Your task to perform on an android device: Add "logitech g pro" to the cart on bestbuy.com, then select checkout. Image 0: 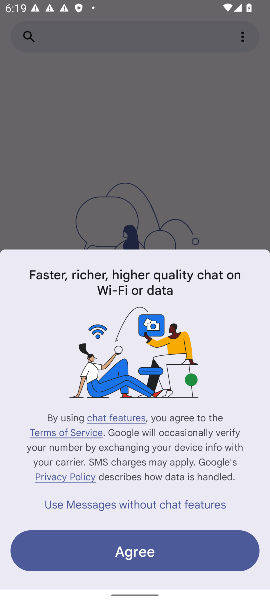
Step 0: press home button
Your task to perform on an android device: Add "logitech g pro" to the cart on bestbuy.com, then select checkout. Image 1: 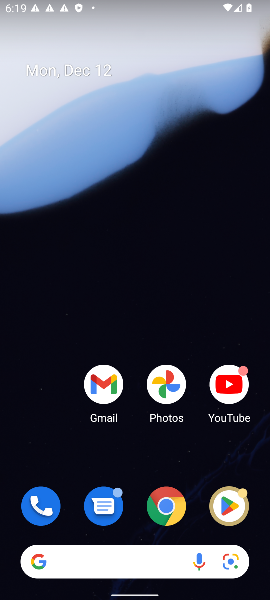
Step 1: click (167, 556)
Your task to perform on an android device: Add "logitech g pro" to the cart on bestbuy.com, then select checkout. Image 2: 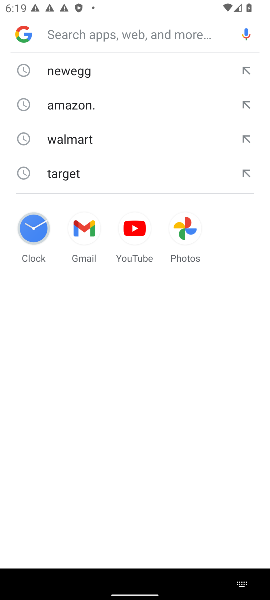
Step 2: type "bestbuy"
Your task to perform on an android device: Add "logitech g pro" to the cart on bestbuy.com, then select checkout. Image 3: 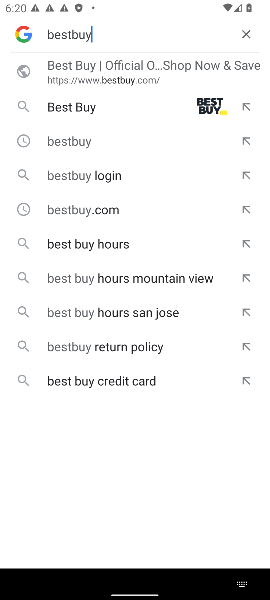
Step 3: click (124, 67)
Your task to perform on an android device: Add "logitech g pro" to the cart on bestbuy.com, then select checkout. Image 4: 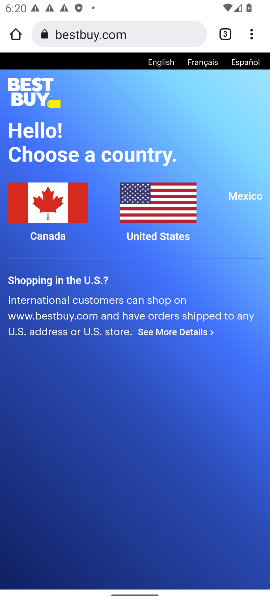
Step 4: click (50, 223)
Your task to perform on an android device: Add "logitech g pro" to the cart on bestbuy.com, then select checkout. Image 5: 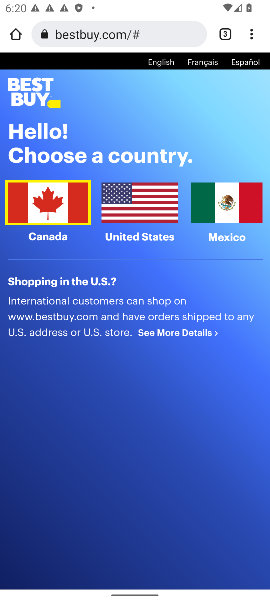
Step 5: click (50, 223)
Your task to perform on an android device: Add "logitech g pro" to the cart on bestbuy.com, then select checkout. Image 6: 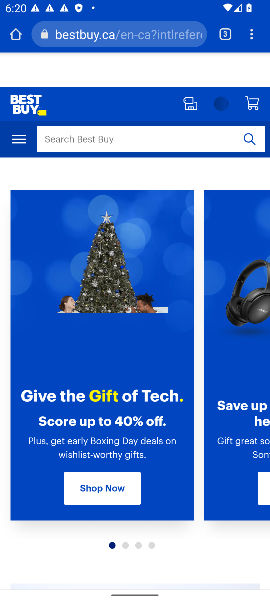
Step 6: click (116, 143)
Your task to perform on an android device: Add "logitech g pro" to the cart on bestbuy.com, then select checkout. Image 7: 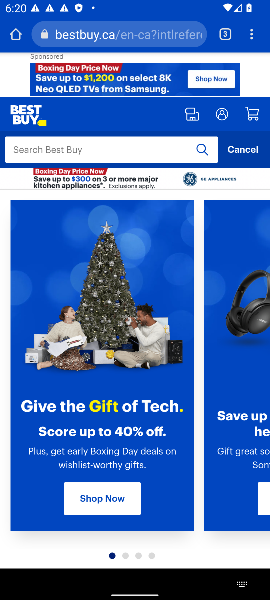
Step 7: type "logitech gpro"
Your task to perform on an android device: Add "logitech g pro" to the cart on bestbuy.com, then select checkout. Image 8: 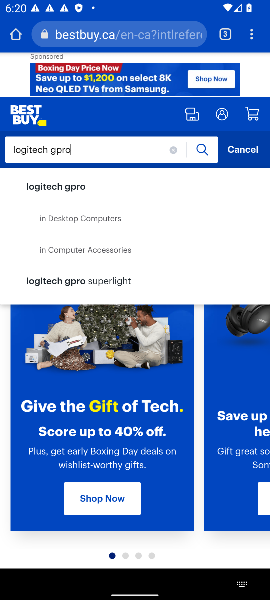
Step 8: click (197, 155)
Your task to perform on an android device: Add "logitech g pro" to the cart on bestbuy.com, then select checkout. Image 9: 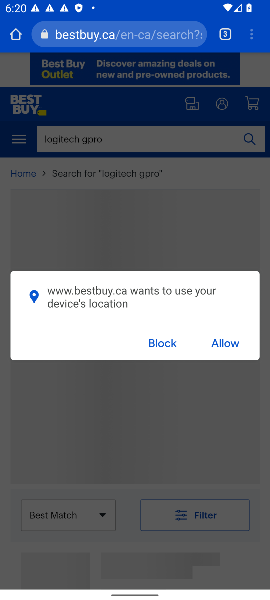
Step 9: click (166, 345)
Your task to perform on an android device: Add "logitech g pro" to the cart on bestbuy.com, then select checkout. Image 10: 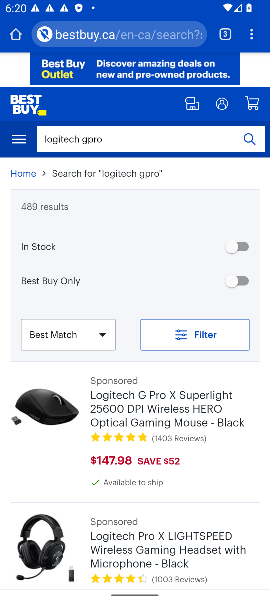
Step 10: click (147, 394)
Your task to perform on an android device: Add "logitech g pro" to the cart on bestbuy.com, then select checkout. Image 11: 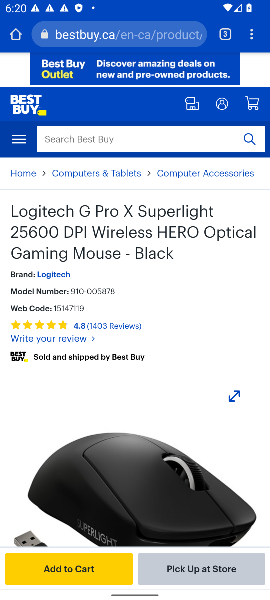
Step 11: click (74, 570)
Your task to perform on an android device: Add "logitech g pro" to the cart on bestbuy.com, then select checkout. Image 12: 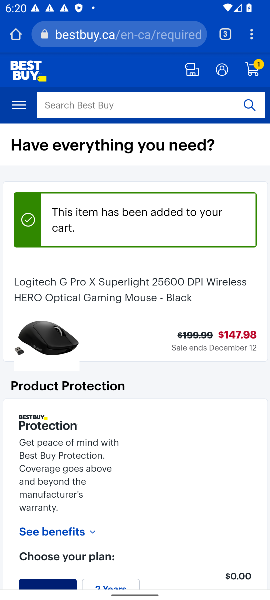
Step 12: task complete